Your task to perform on an android device: empty trash in google photos Image 0: 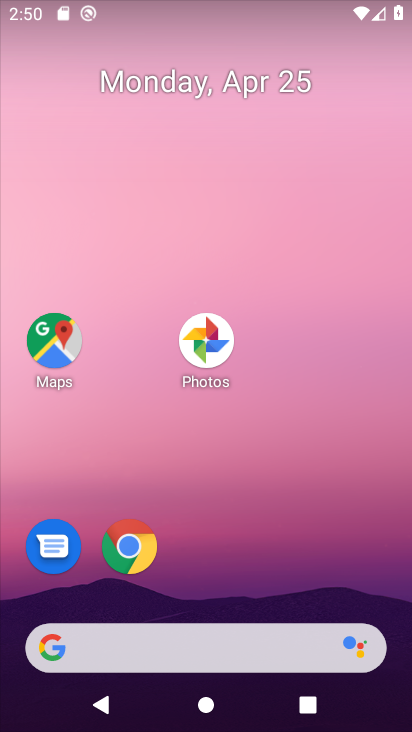
Step 0: drag from (324, 487) to (348, 222)
Your task to perform on an android device: empty trash in google photos Image 1: 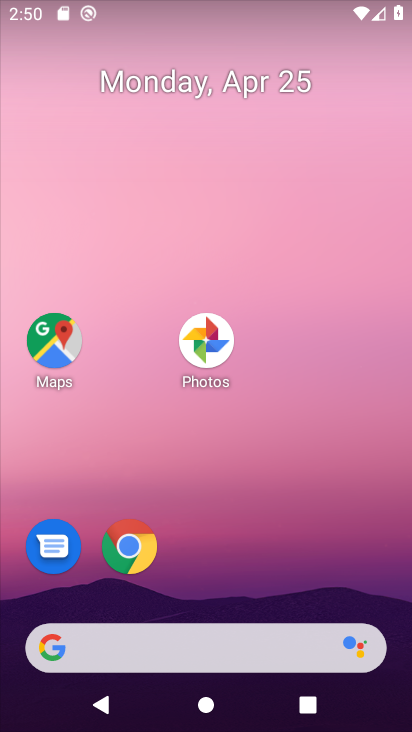
Step 1: drag from (238, 584) to (293, 185)
Your task to perform on an android device: empty trash in google photos Image 2: 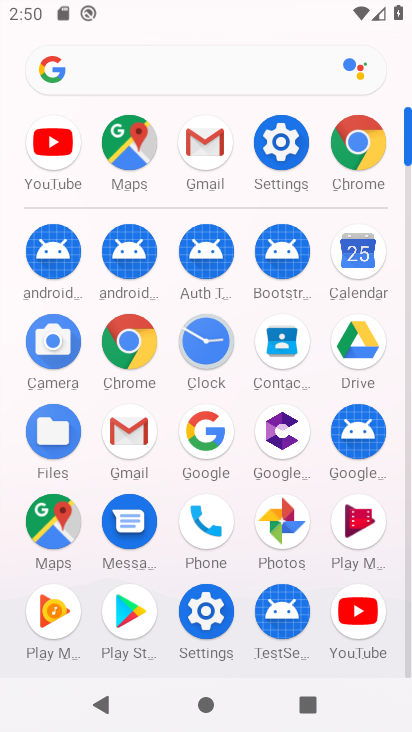
Step 2: click (289, 517)
Your task to perform on an android device: empty trash in google photos Image 3: 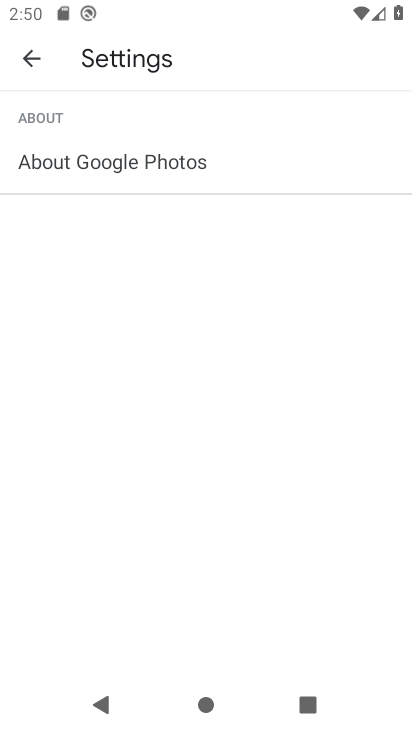
Step 3: click (42, 61)
Your task to perform on an android device: empty trash in google photos Image 4: 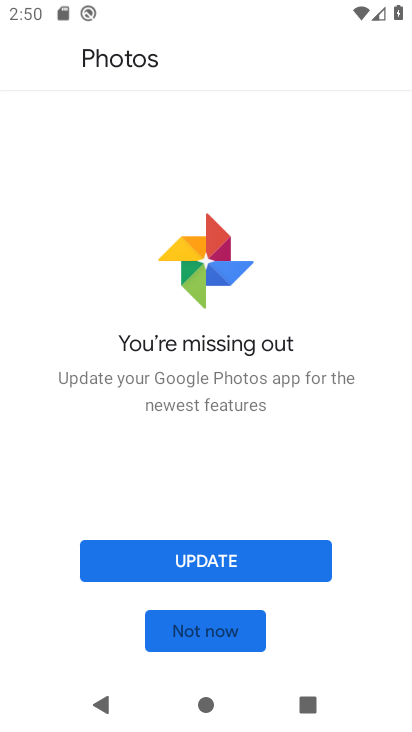
Step 4: click (190, 628)
Your task to perform on an android device: empty trash in google photos Image 5: 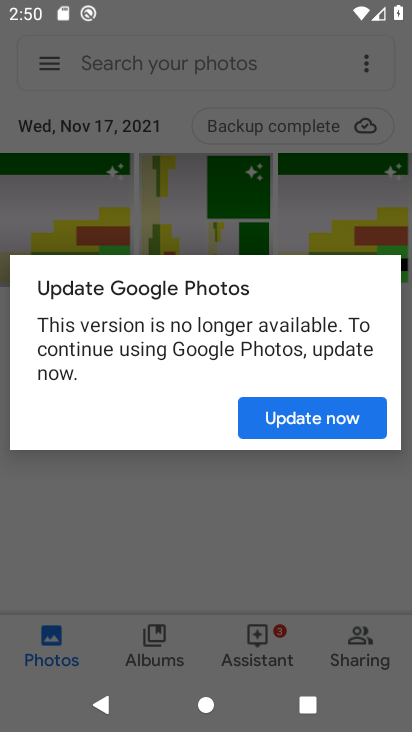
Step 5: click (258, 418)
Your task to perform on an android device: empty trash in google photos Image 6: 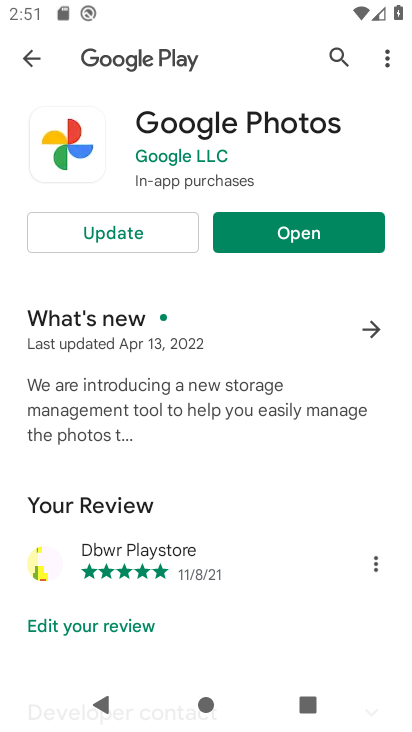
Step 6: press back button
Your task to perform on an android device: empty trash in google photos Image 7: 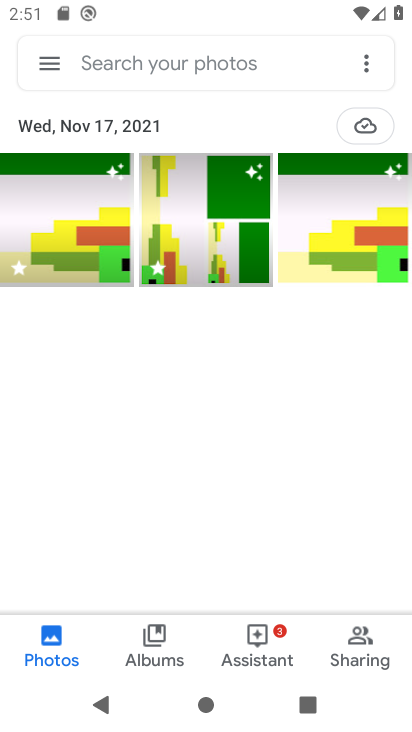
Step 7: click (55, 59)
Your task to perform on an android device: empty trash in google photos Image 8: 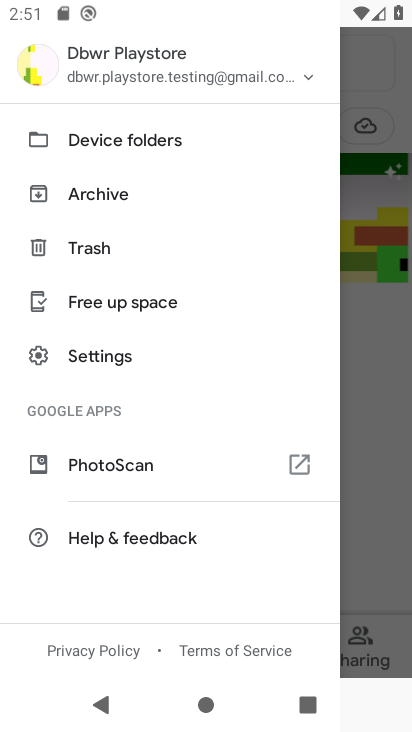
Step 8: click (109, 252)
Your task to perform on an android device: empty trash in google photos Image 9: 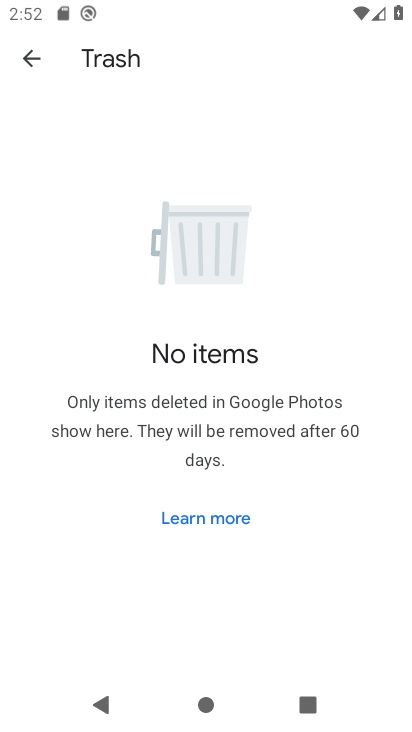
Step 9: task complete